Your task to perform on an android device: turn on javascript in the chrome app Image 0: 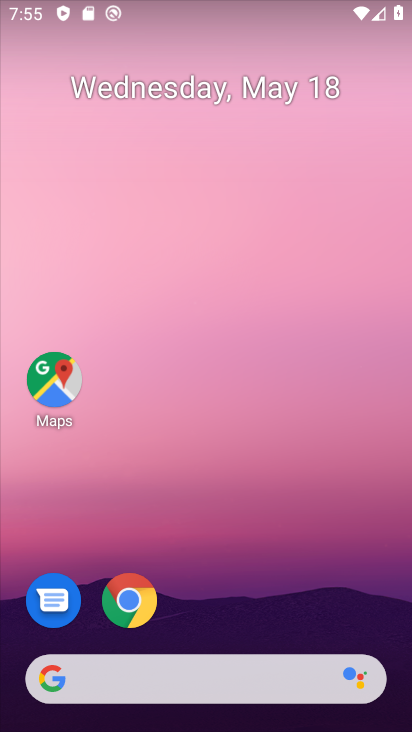
Step 0: drag from (290, 675) to (180, 121)
Your task to perform on an android device: turn on javascript in the chrome app Image 1: 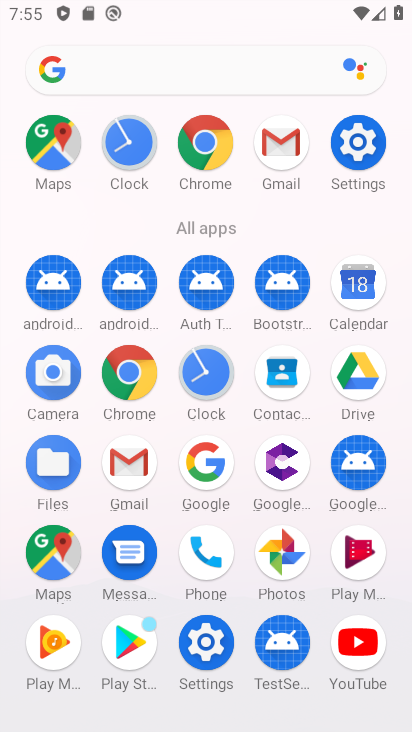
Step 1: click (135, 383)
Your task to perform on an android device: turn on javascript in the chrome app Image 2: 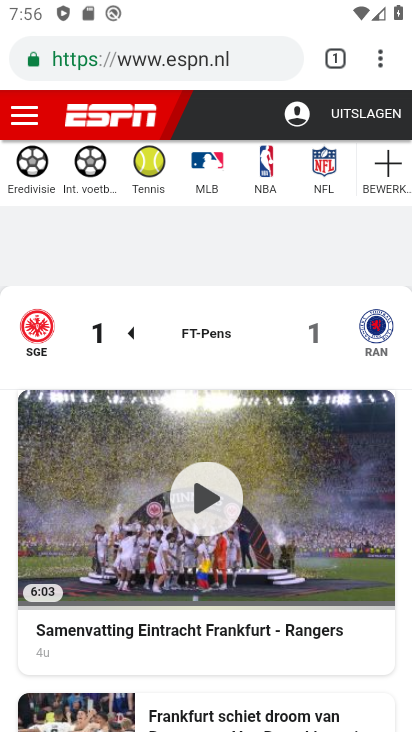
Step 2: click (375, 75)
Your task to perform on an android device: turn on javascript in the chrome app Image 3: 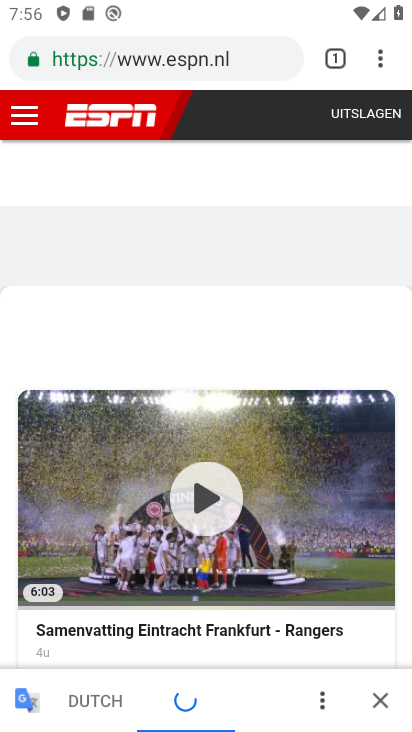
Step 3: click (362, 72)
Your task to perform on an android device: turn on javascript in the chrome app Image 4: 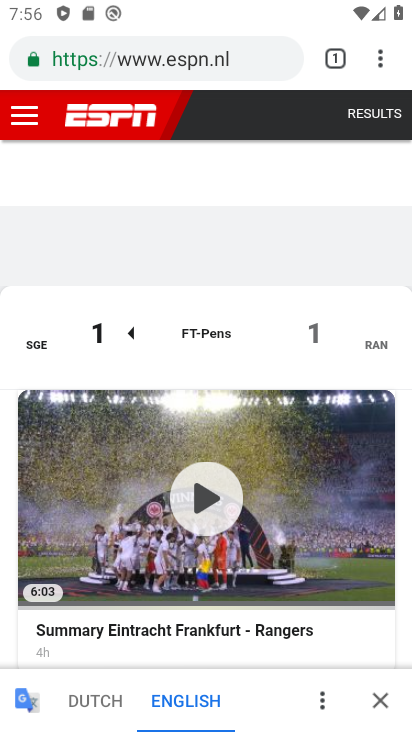
Step 4: click (376, 67)
Your task to perform on an android device: turn on javascript in the chrome app Image 5: 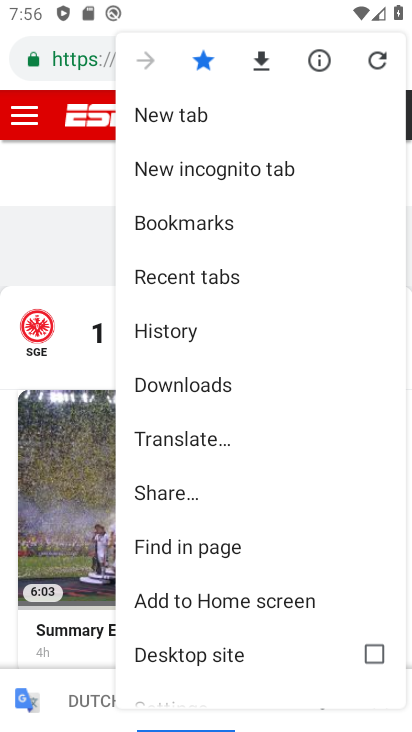
Step 5: drag from (188, 625) to (247, 396)
Your task to perform on an android device: turn on javascript in the chrome app Image 6: 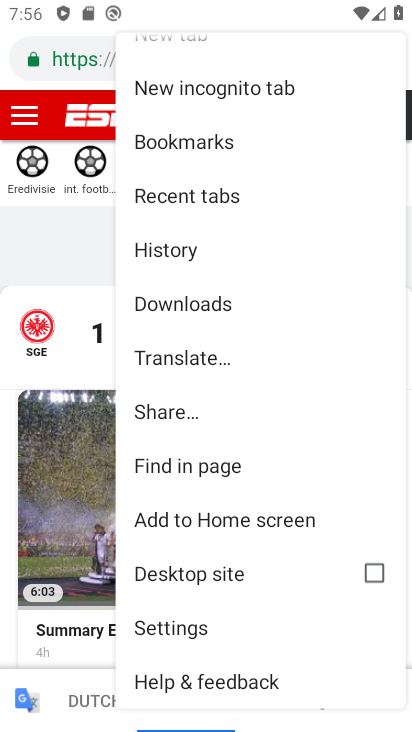
Step 6: click (181, 624)
Your task to perform on an android device: turn on javascript in the chrome app Image 7: 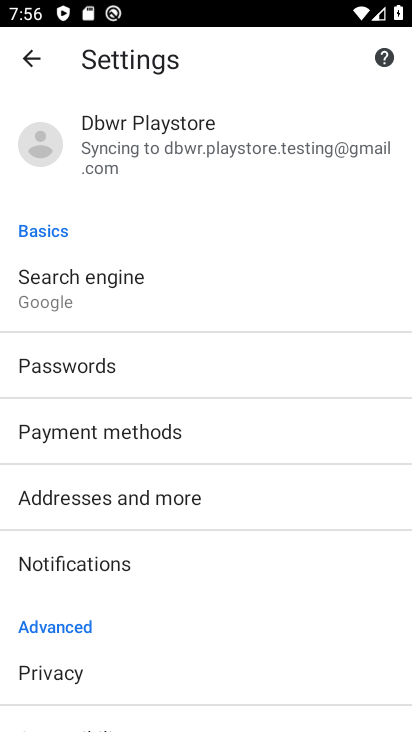
Step 7: drag from (164, 631) to (196, 362)
Your task to perform on an android device: turn on javascript in the chrome app Image 8: 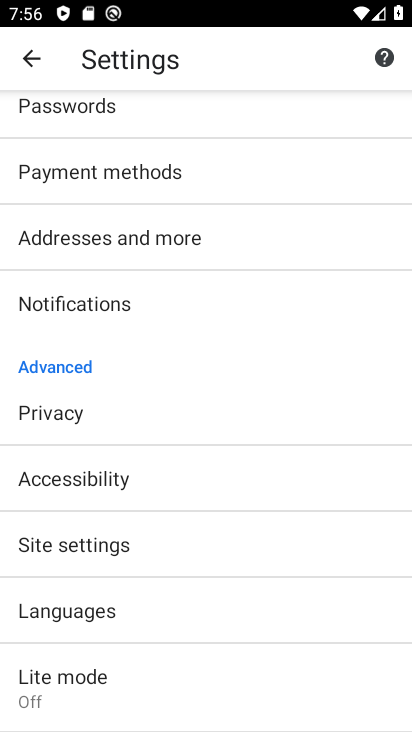
Step 8: click (77, 534)
Your task to perform on an android device: turn on javascript in the chrome app Image 9: 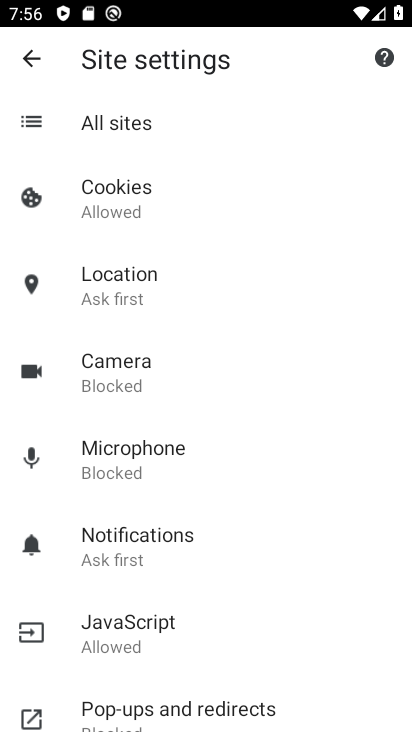
Step 9: click (149, 617)
Your task to perform on an android device: turn on javascript in the chrome app Image 10: 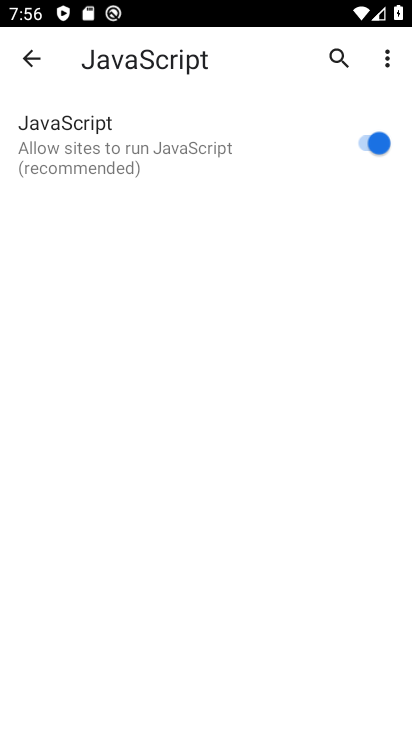
Step 10: task complete